Your task to perform on an android device: Go to Yahoo.com Image 0: 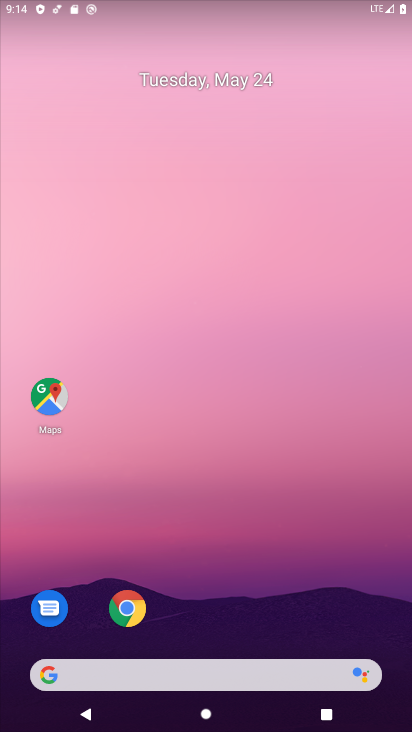
Step 0: click (139, 607)
Your task to perform on an android device: Go to Yahoo.com Image 1: 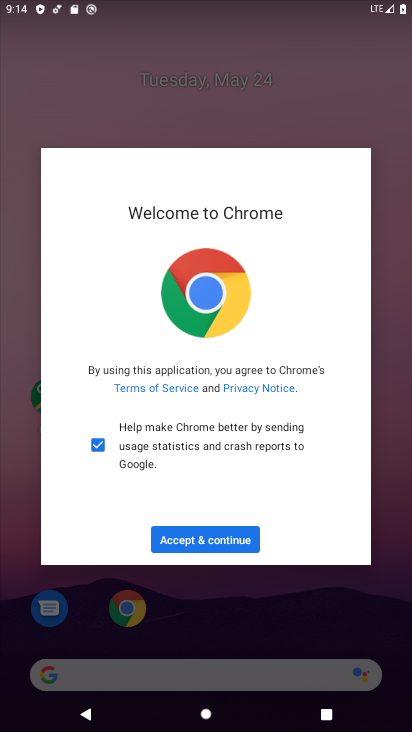
Step 1: click (204, 535)
Your task to perform on an android device: Go to Yahoo.com Image 2: 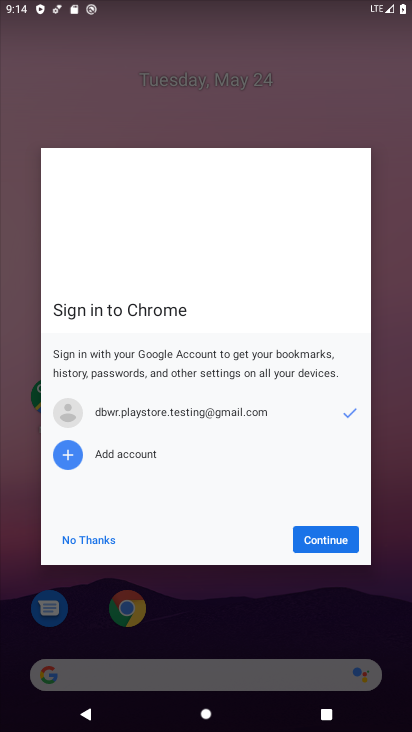
Step 2: click (324, 539)
Your task to perform on an android device: Go to Yahoo.com Image 3: 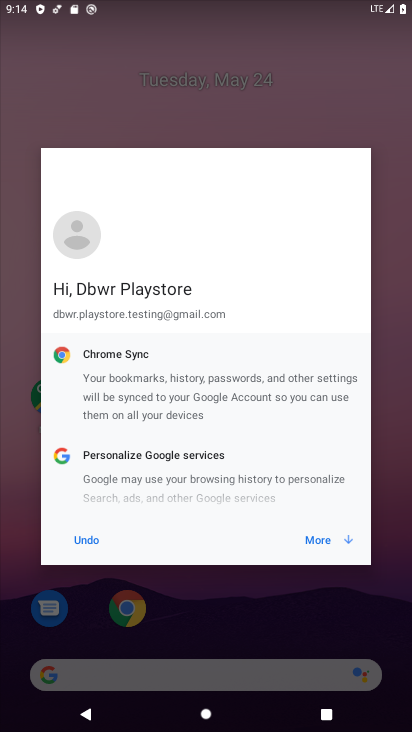
Step 3: click (324, 539)
Your task to perform on an android device: Go to Yahoo.com Image 4: 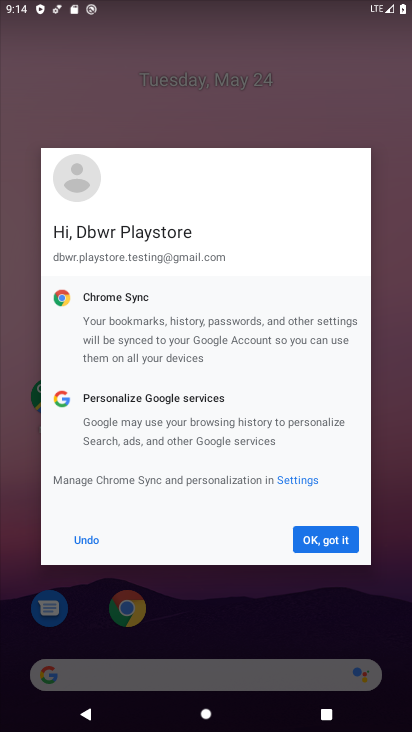
Step 4: click (324, 539)
Your task to perform on an android device: Go to Yahoo.com Image 5: 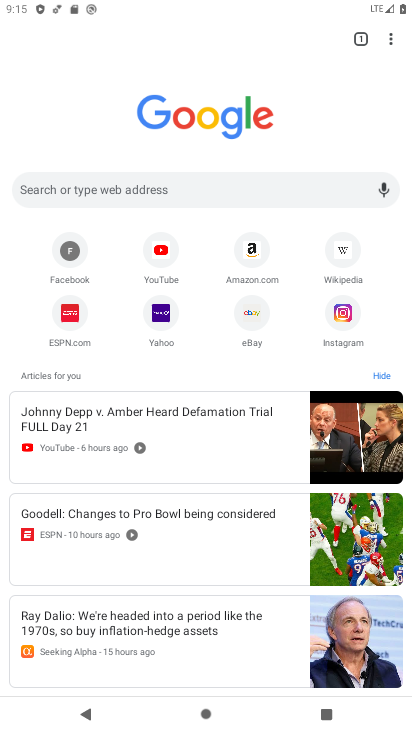
Step 5: click (160, 323)
Your task to perform on an android device: Go to Yahoo.com Image 6: 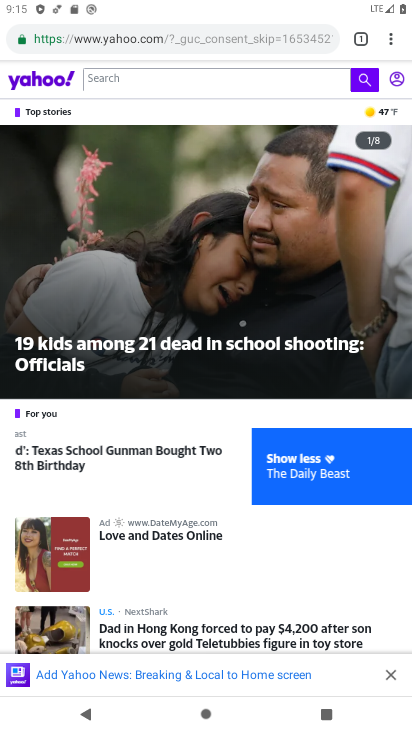
Step 6: task complete